Your task to perform on an android device: change alarm snooze length Image 0: 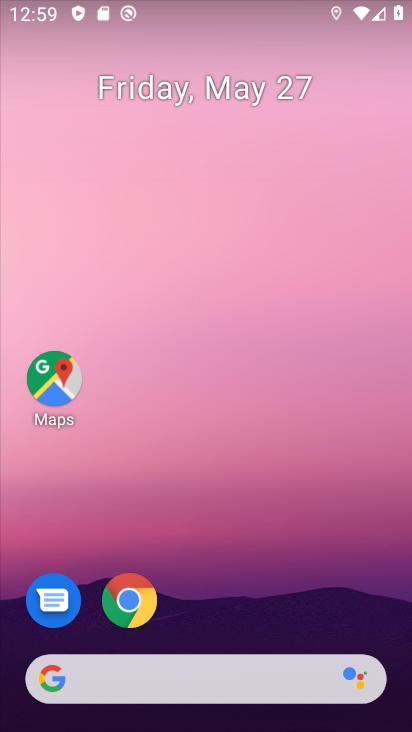
Step 0: drag from (206, 723) to (180, 23)
Your task to perform on an android device: change alarm snooze length Image 1: 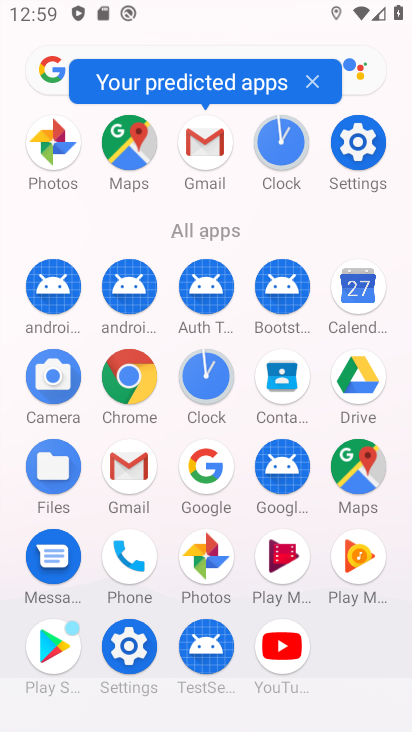
Step 1: click (209, 376)
Your task to perform on an android device: change alarm snooze length Image 2: 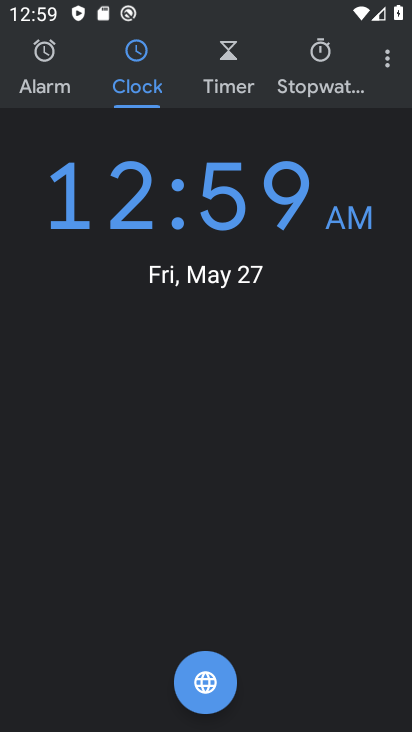
Step 2: click (388, 66)
Your task to perform on an android device: change alarm snooze length Image 3: 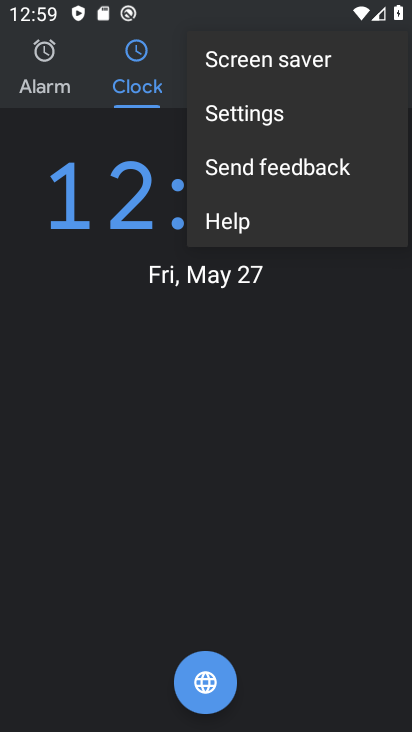
Step 3: click (246, 118)
Your task to perform on an android device: change alarm snooze length Image 4: 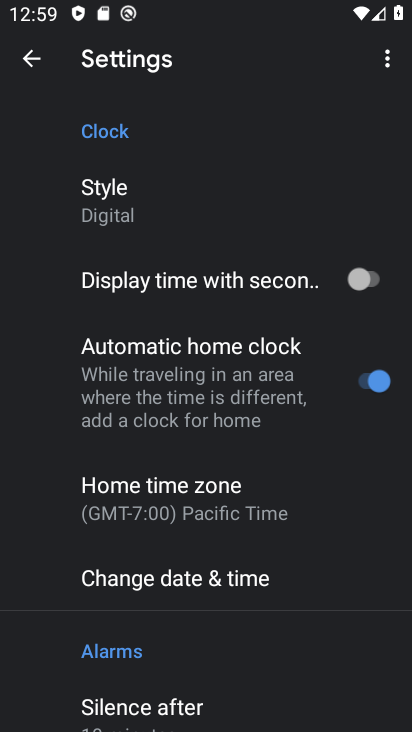
Step 4: drag from (153, 651) to (154, 197)
Your task to perform on an android device: change alarm snooze length Image 5: 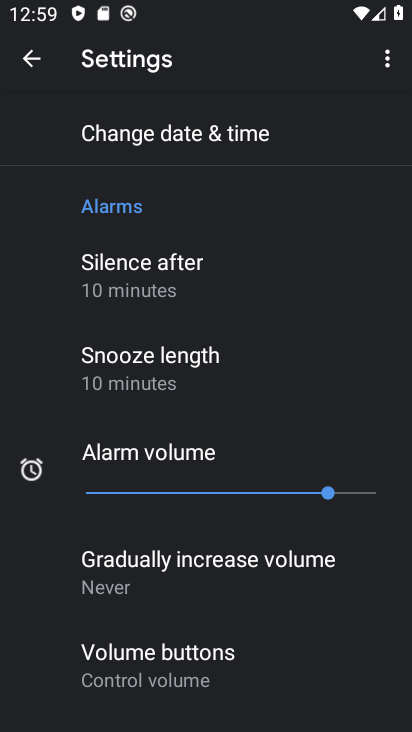
Step 5: click (130, 525)
Your task to perform on an android device: change alarm snooze length Image 6: 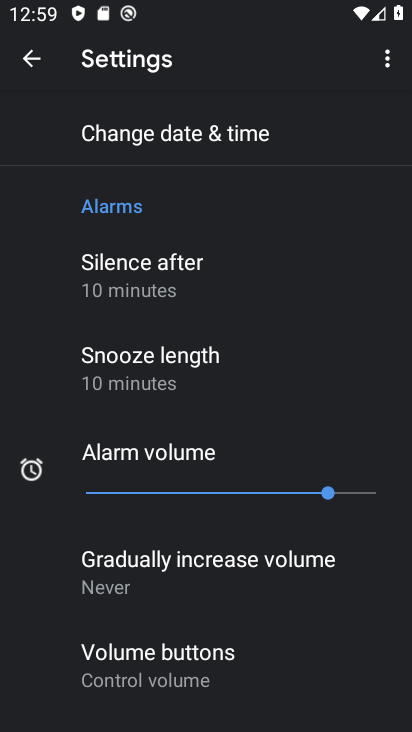
Step 6: click (176, 369)
Your task to perform on an android device: change alarm snooze length Image 7: 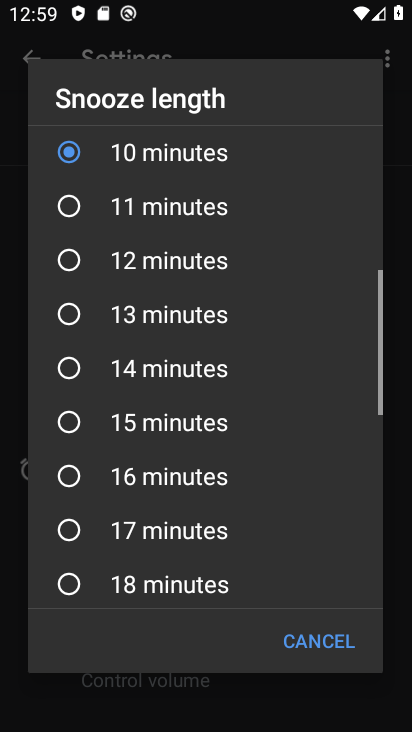
Step 7: click (85, 534)
Your task to perform on an android device: change alarm snooze length Image 8: 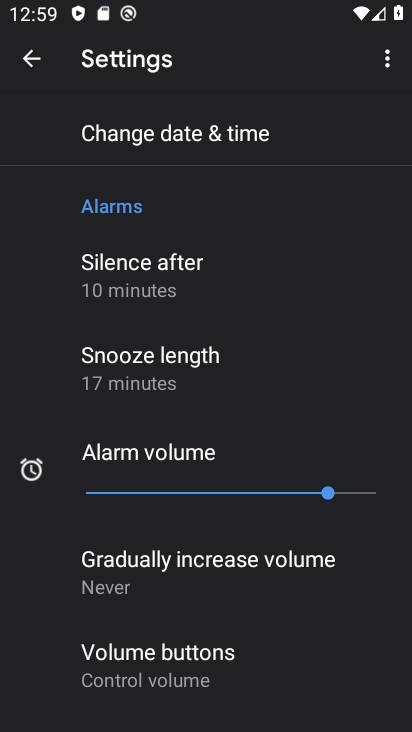
Step 8: task complete